Your task to perform on an android device: install app "PlayWell" Image 0: 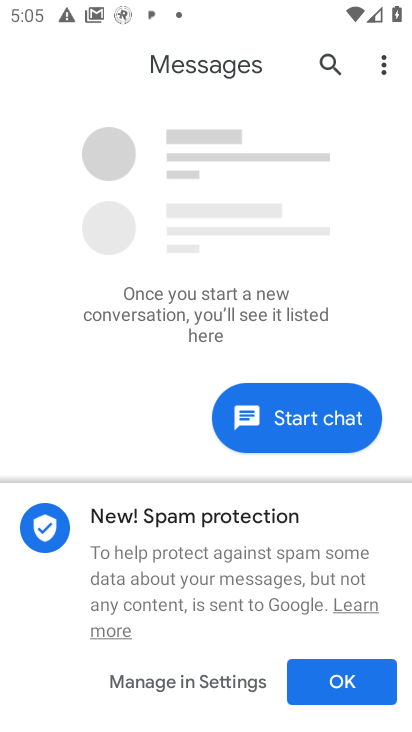
Step 0: press home button
Your task to perform on an android device: install app "PlayWell" Image 1: 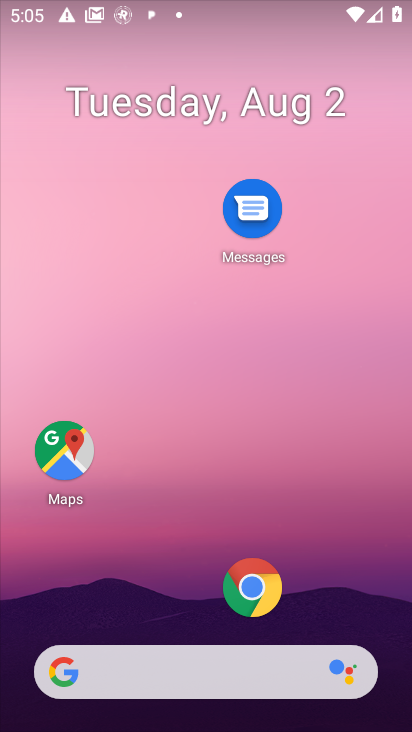
Step 1: drag from (169, 596) to (151, 131)
Your task to perform on an android device: install app "PlayWell" Image 2: 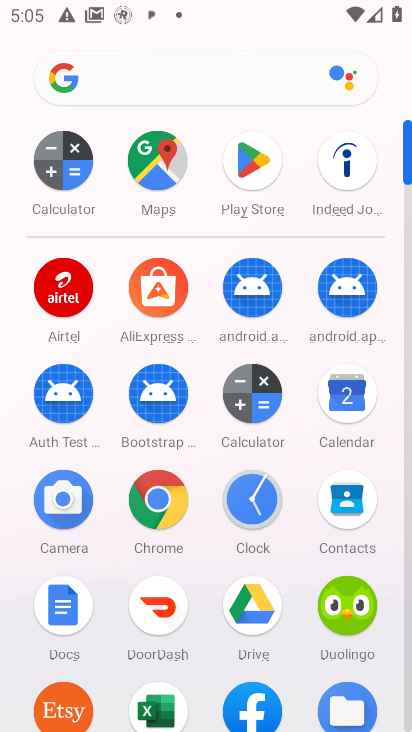
Step 2: click (241, 172)
Your task to perform on an android device: install app "PlayWell" Image 3: 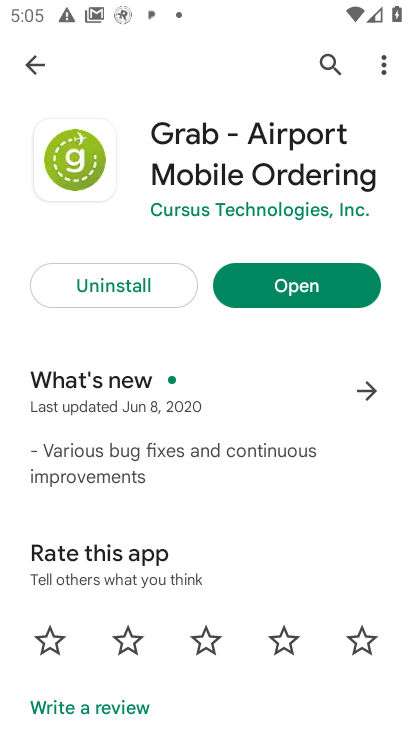
Step 3: click (320, 67)
Your task to perform on an android device: install app "PlayWell" Image 4: 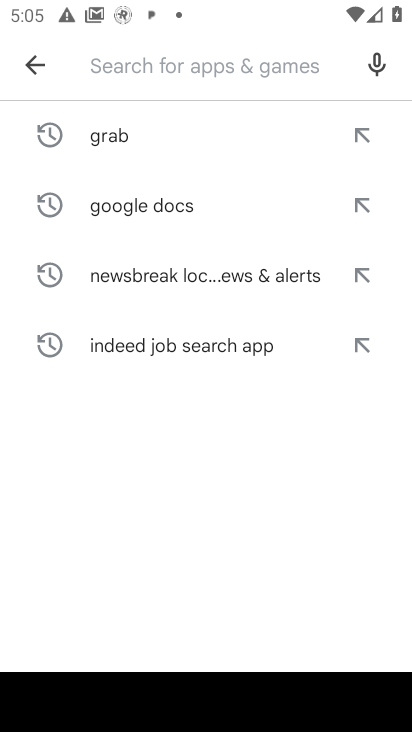
Step 4: type "PlayWell"
Your task to perform on an android device: install app "PlayWell" Image 5: 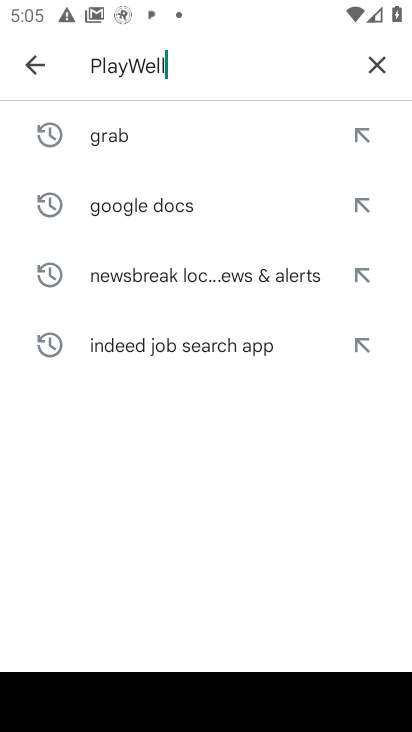
Step 5: type ""
Your task to perform on an android device: install app "PlayWell" Image 6: 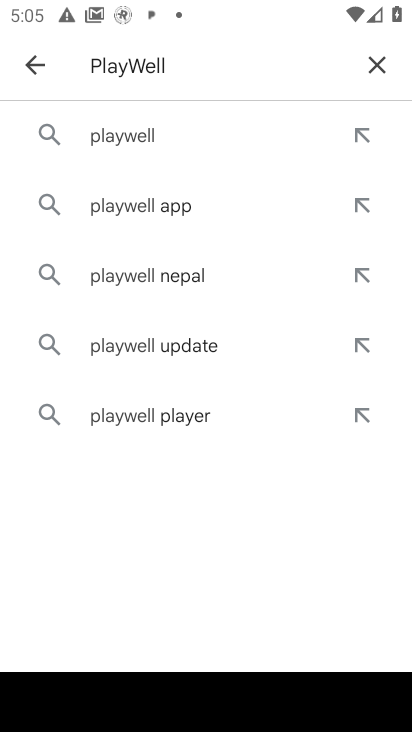
Step 6: click (116, 143)
Your task to perform on an android device: install app "PlayWell" Image 7: 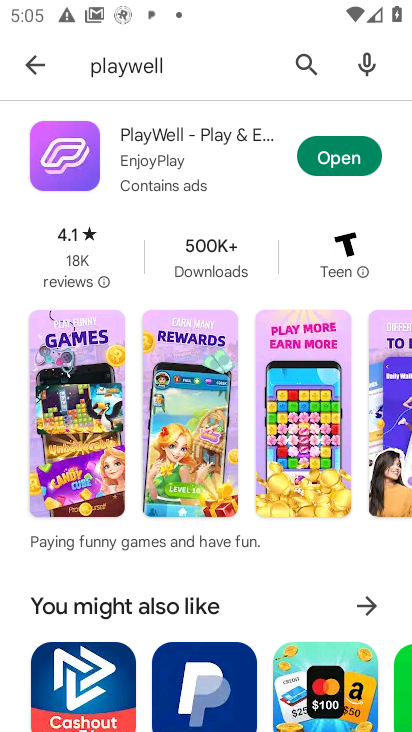
Step 7: task complete